Your task to perform on an android device: Search for flights from Mexico city to Boston Image 0: 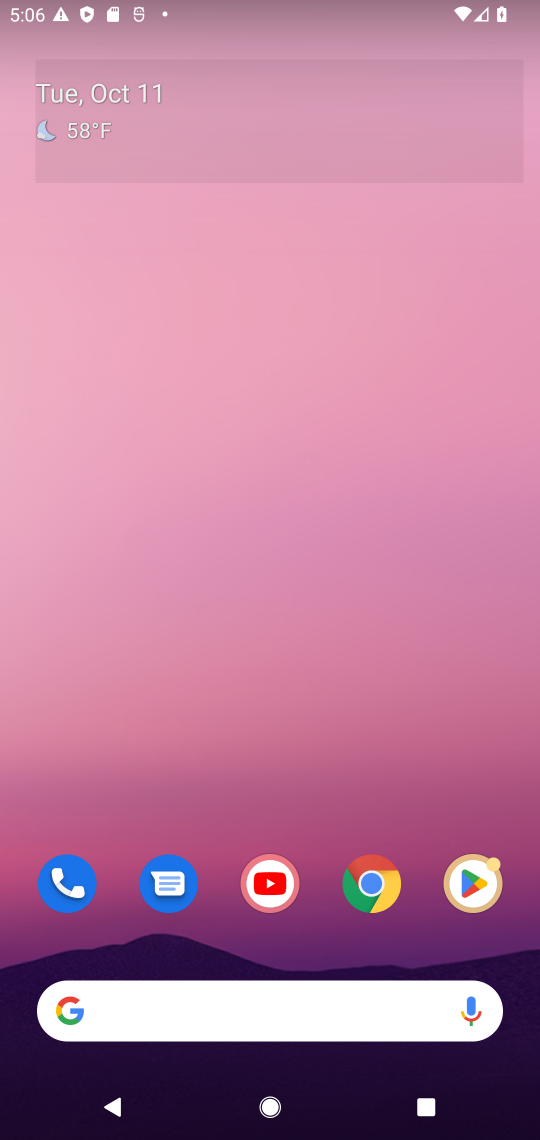
Step 0: drag from (345, 776) to (347, 121)
Your task to perform on an android device: Search for flights from Mexico city to Boston Image 1: 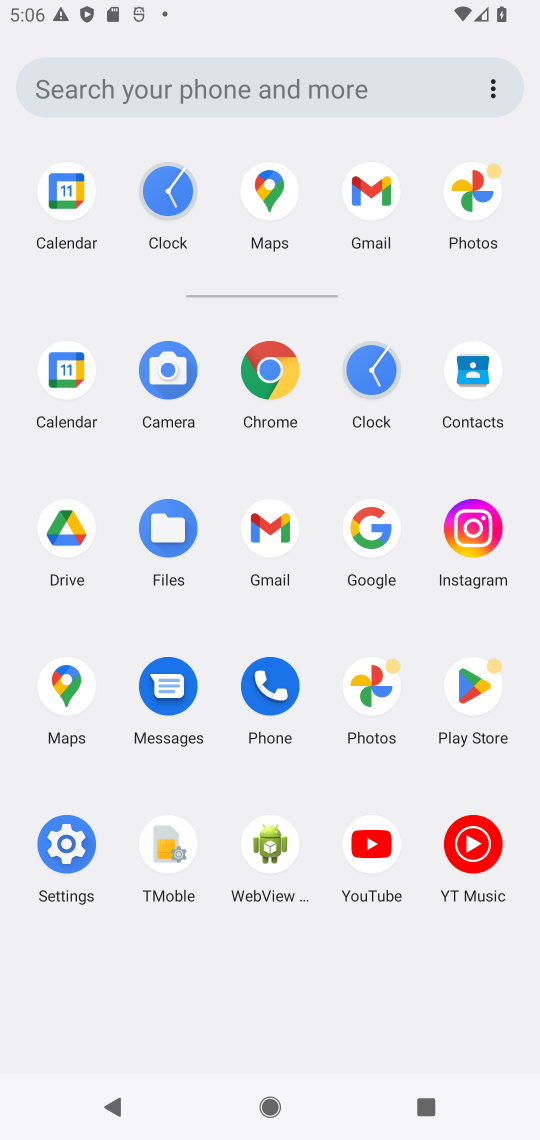
Step 1: click (275, 377)
Your task to perform on an android device: Search for flights from Mexico city to Boston Image 2: 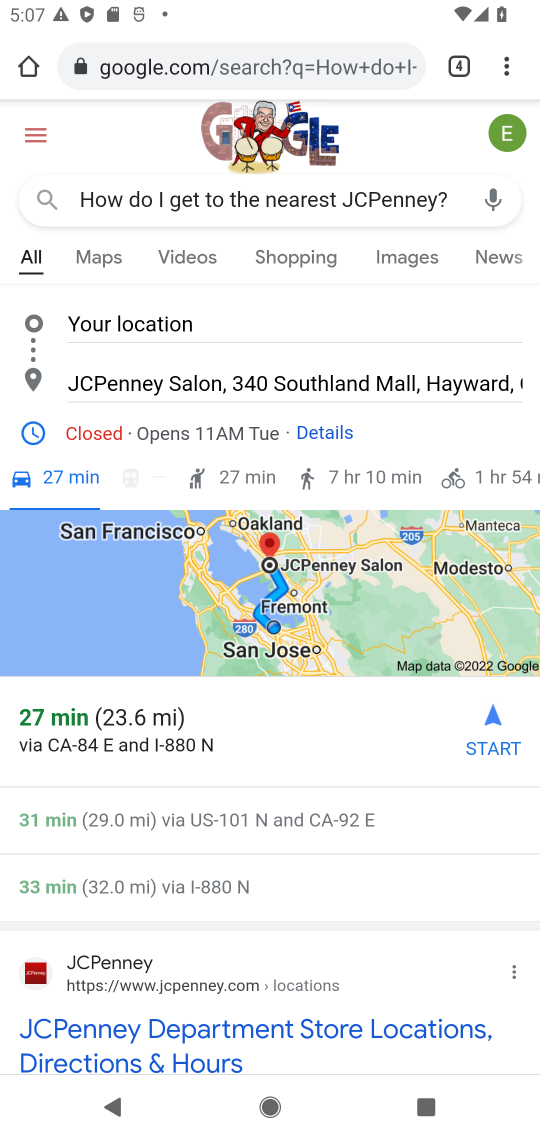
Step 2: click (337, 66)
Your task to perform on an android device: Search for flights from Mexico city to Boston Image 3: 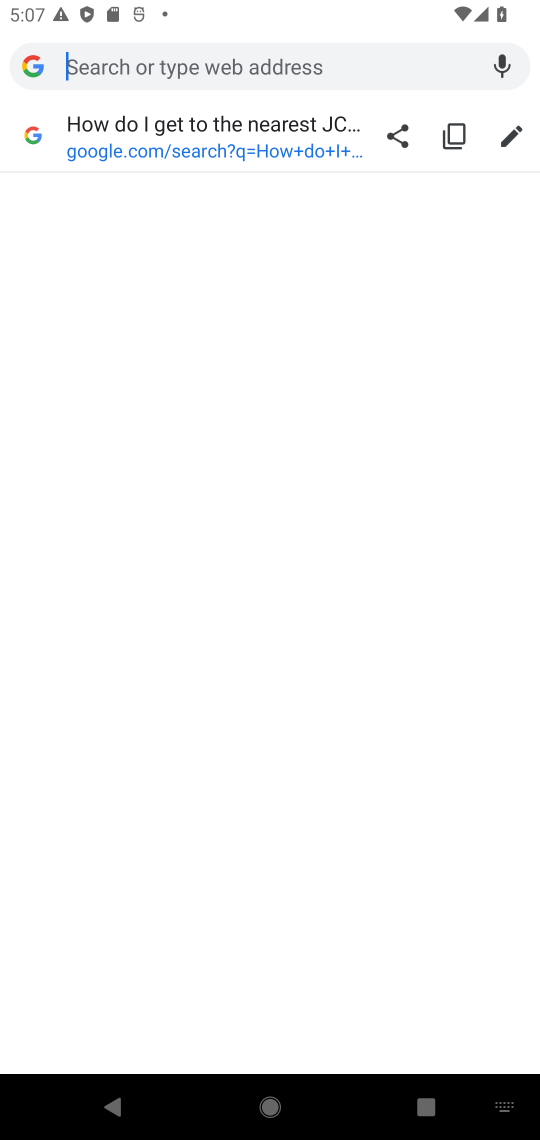
Step 3: type "flights from Mexico city to Boston"
Your task to perform on an android device: Search for flights from Mexico city to Boston Image 4: 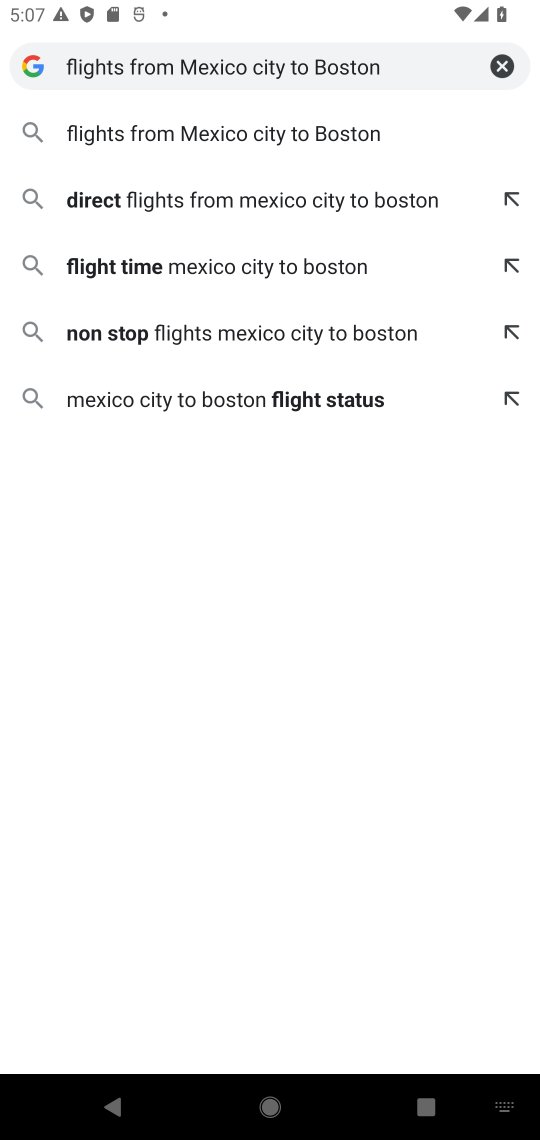
Step 4: press enter
Your task to perform on an android device: Search for flights from Mexico city to Boston Image 5: 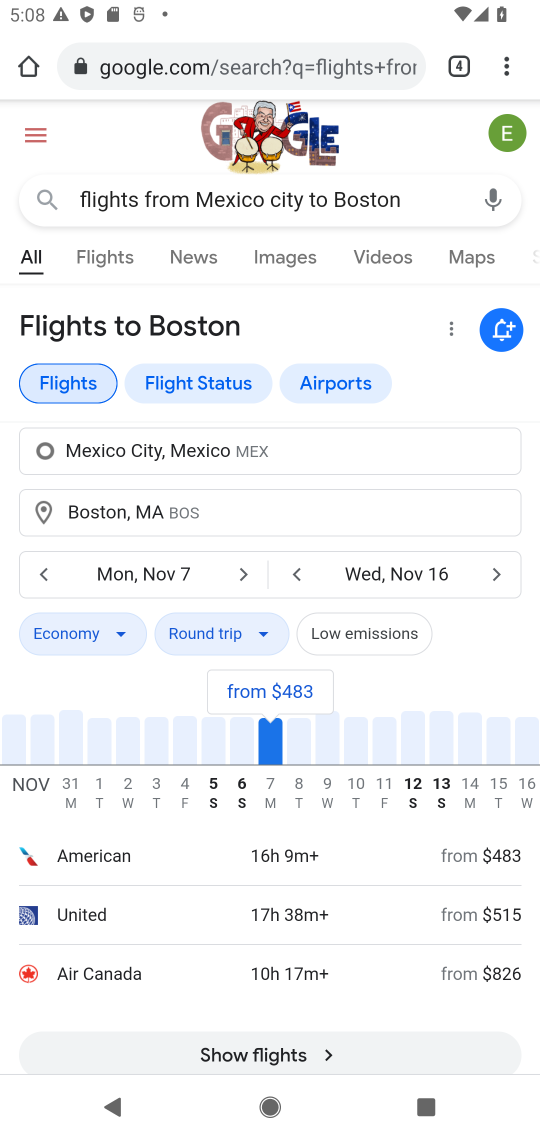
Step 5: task complete